Your task to perform on an android device: Add logitech g933 to the cart on bestbuy Image 0: 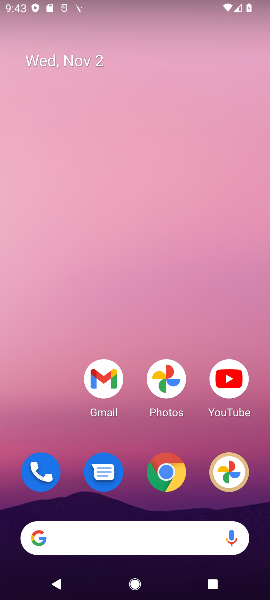
Step 0: task complete